Your task to perform on an android device: change the clock display to show seconds Image 0: 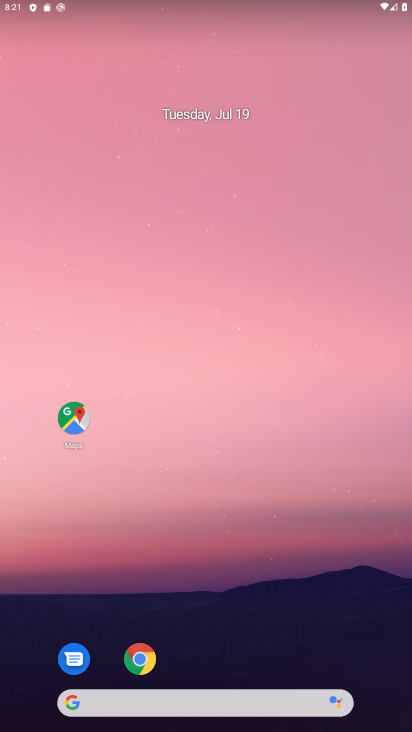
Step 0: drag from (250, 675) to (294, 233)
Your task to perform on an android device: change the clock display to show seconds Image 1: 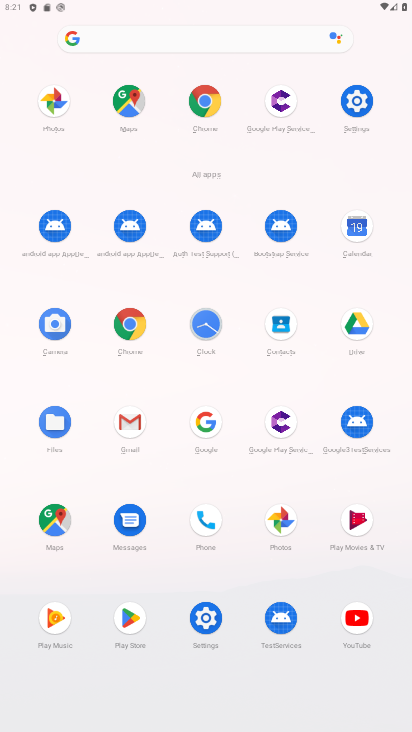
Step 1: click (216, 329)
Your task to perform on an android device: change the clock display to show seconds Image 2: 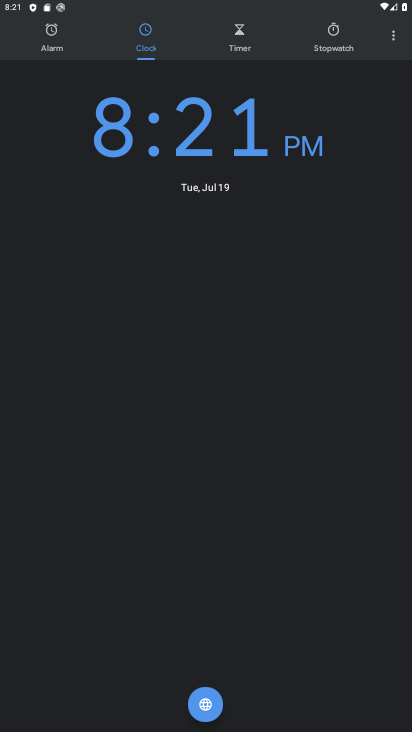
Step 2: click (400, 42)
Your task to perform on an android device: change the clock display to show seconds Image 3: 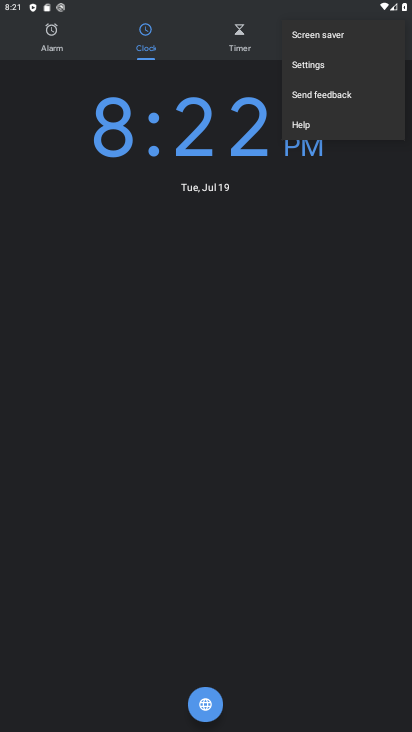
Step 3: click (357, 61)
Your task to perform on an android device: change the clock display to show seconds Image 4: 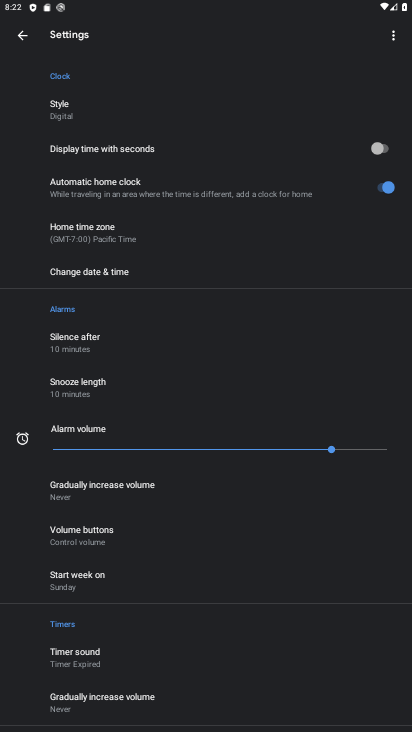
Step 4: click (393, 145)
Your task to perform on an android device: change the clock display to show seconds Image 5: 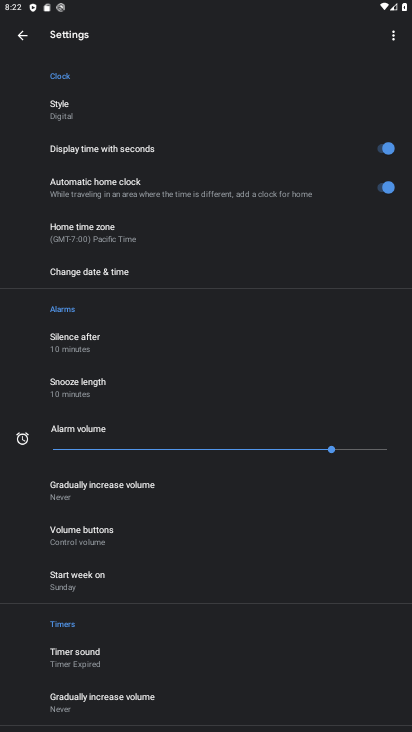
Step 5: task complete